Your task to perform on an android device: Open Chrome and go to the settings page Image 0: 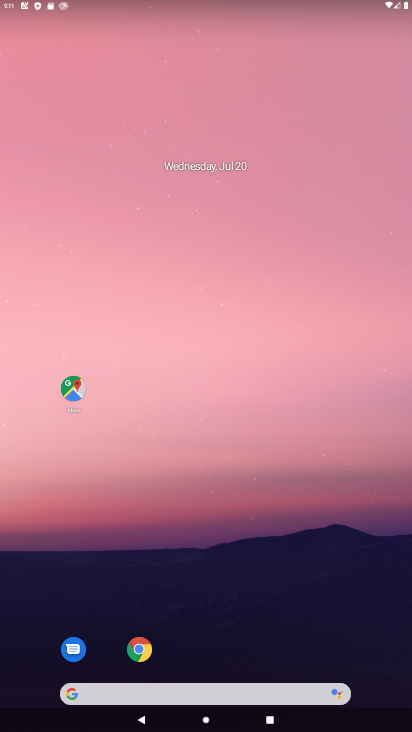
Step 0: click (156, 657)
Your task to perform on an android device: Open Chrome and go to the settings page Image 1: 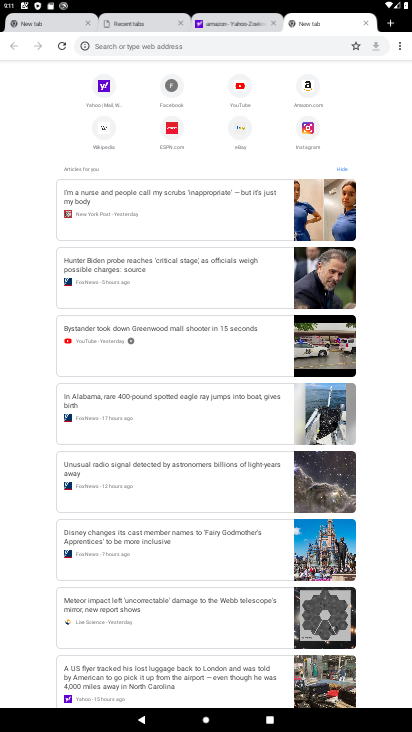
Step 1: click (400, 55)
Your task to perform on an android device: Open Chrome and go to the settings page Image 2: 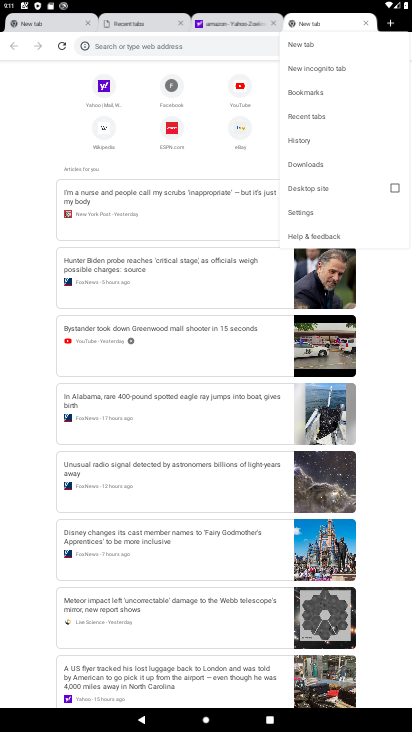
Step 2: click (309, 212)
Your task to perform on an android device: Open Chrome and go to the settings page Image 3: 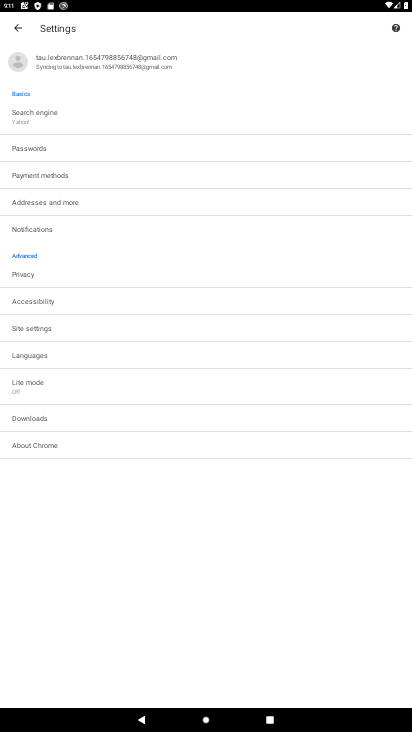
Step 3: task complete